Your task to perform on an android device: find photos in the google photos app Image 0: 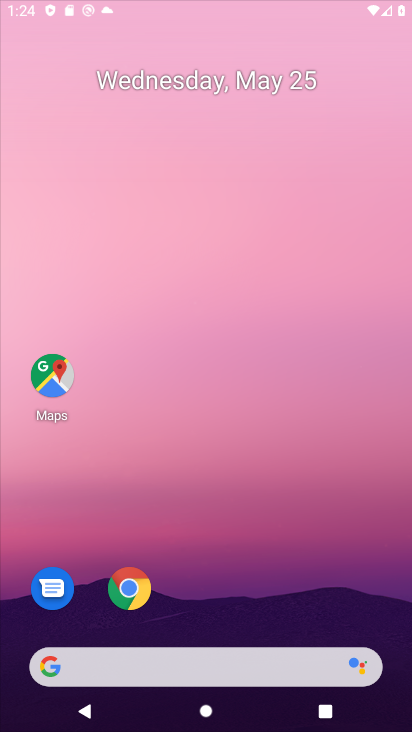
Step 0: drag from (236, 614) to (292, 51)
Your task to perform on an android device: find photos in the google photos app Image 1: 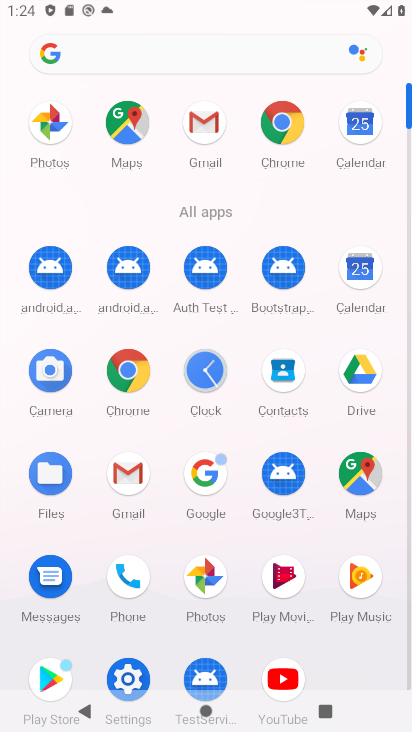
Step 1: click (41, 121)
Your task to perform on an android device: find photos in the google photos app Image 2: 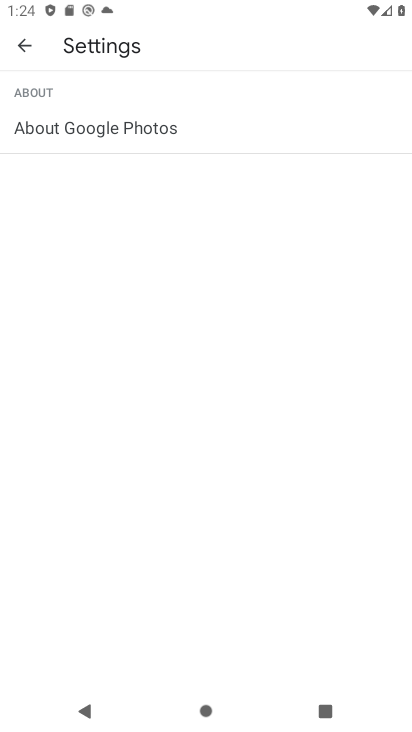
Step 2: click (29, 40)
Your task to perform on an android device: find photos in the google photos app Image 3: 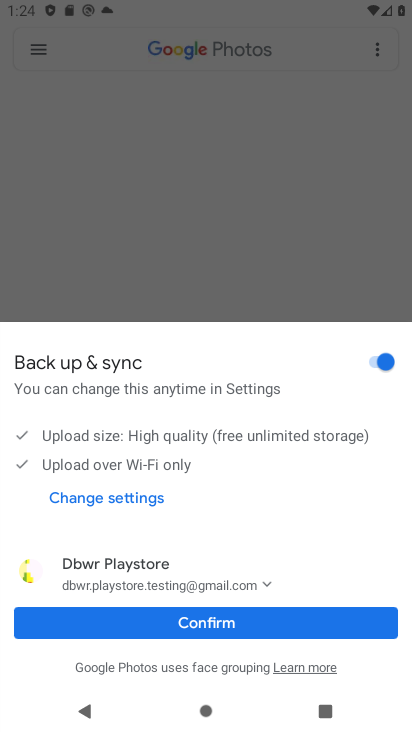
Step 3: click (186, 624)
Your task to perform on an android device: find photos in the google photos app Image 4: 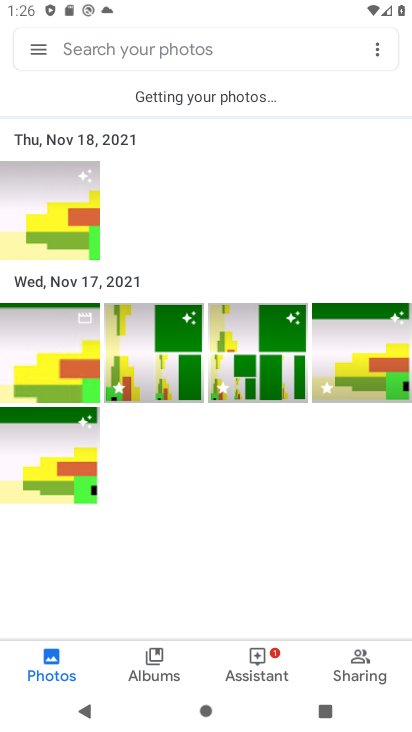
Step 4: task complete